Your task to perform on an android device: Go to calendar. Show me events next week Image 0: 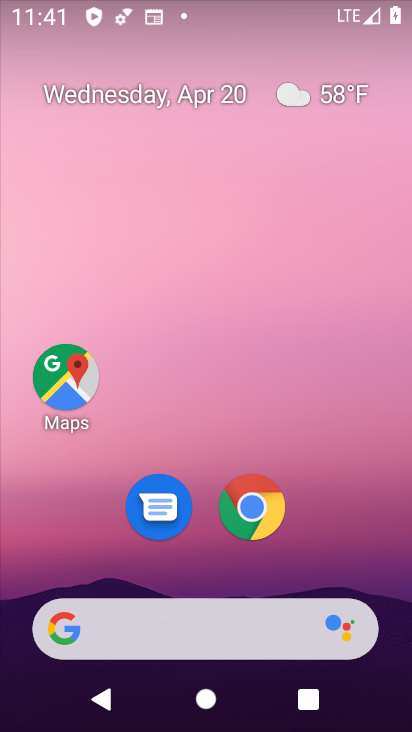
Step 0: drag from (350, 451) to (341, 82)
Your task to perform on an android device: Go to calendar. Show me events next week Image 1: 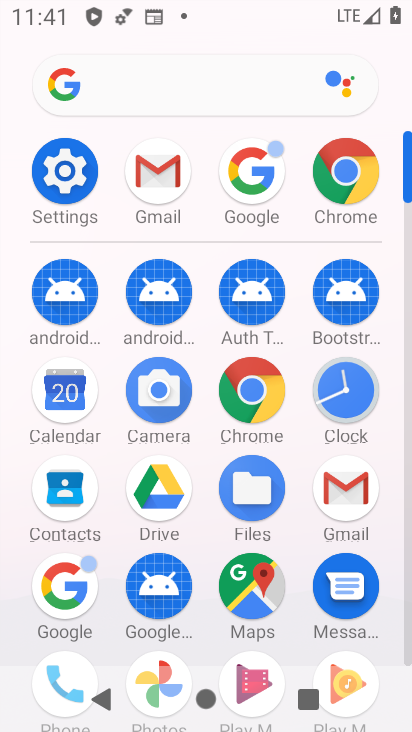
Step 1: click (56, 406)
Your task to perform on an android device: Go to calendar. Show me events next week Image 2: 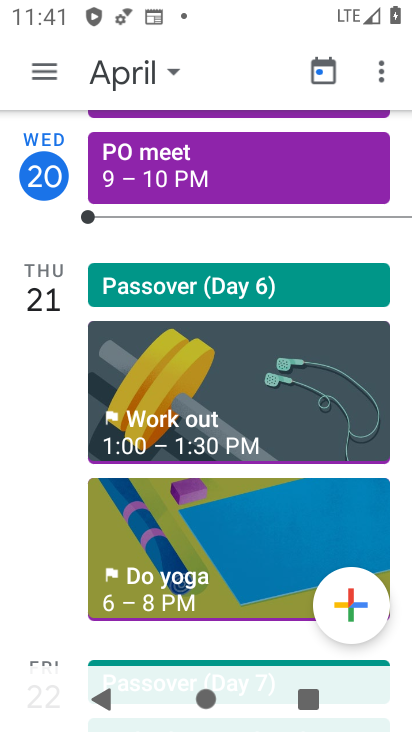
Step 2: click (173, 70)
Your task to perform on an android device: Go to calendar. Show me events next week Image 3: 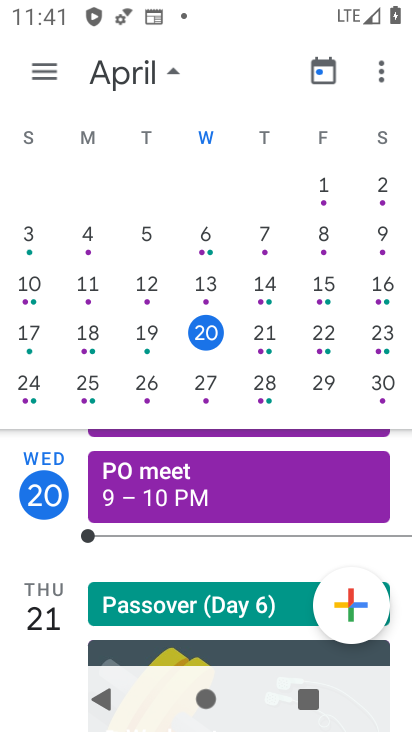
Step 3: click (83, 388)
Your task to perform on an android device: Go to calendar. Show me events next week Image 4: 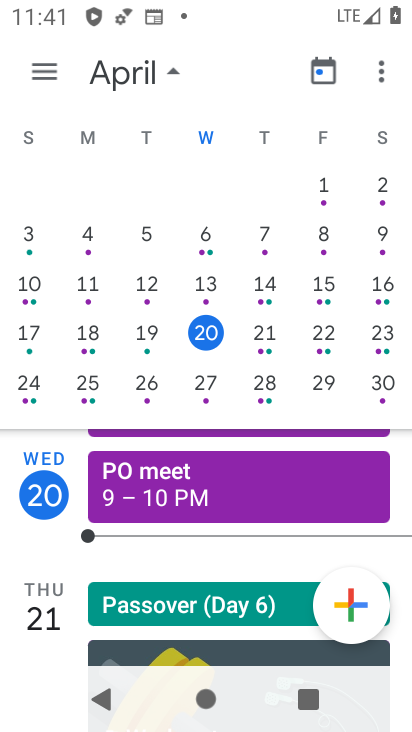
Step 4: click (86, 387)
Your task to perform on an android device: Go to calendar. Show me events next week Image 5: 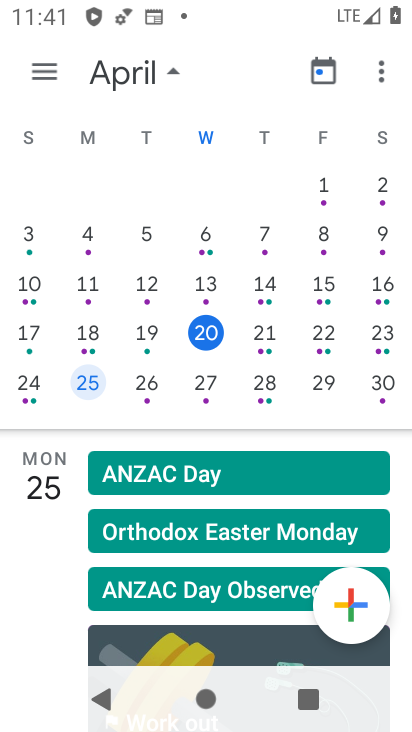
Step 5: task complete